Your task to perform on an android device: Open Wikipedia Image 0: 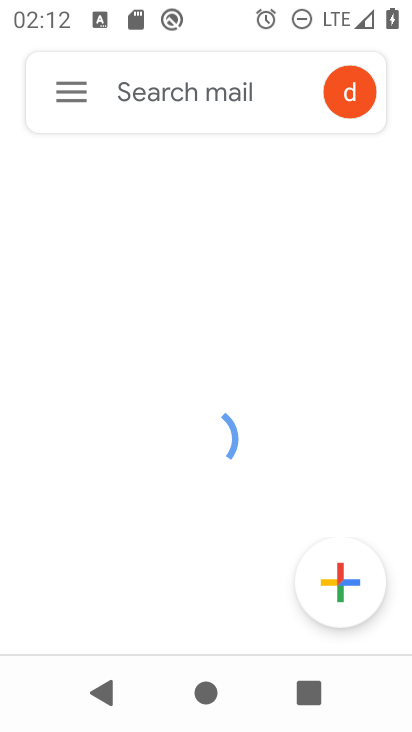
Step 0: press home button
Your task to perform on an android device: Open Wikipedia Image 1: 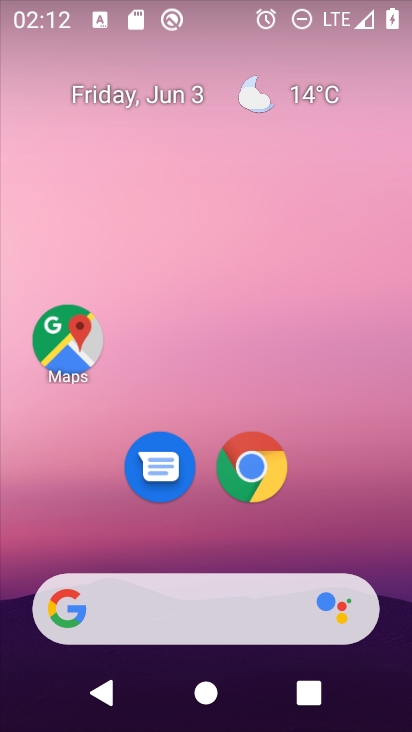
Step 1: click (254, 466)
Your task to perform on an android device: Open Wikipedia Image 2: 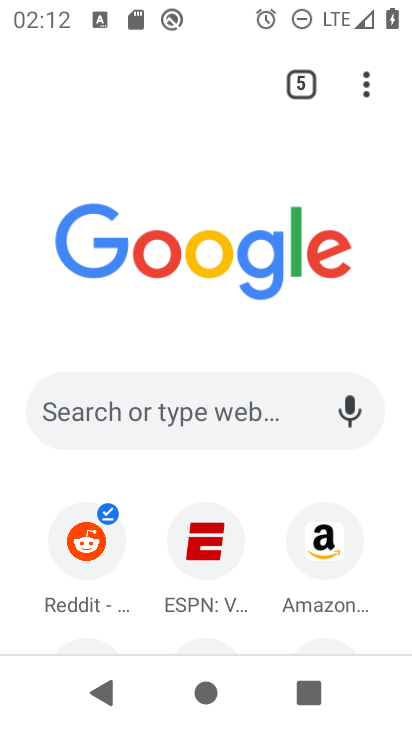
Step 2: click (156, 409)
Your task to perform on an android device: Open Wikipedia Image 3: 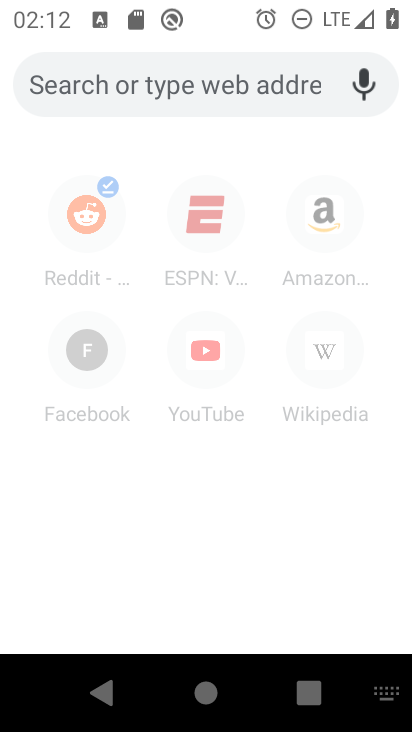
Step 3: type "wikipedia"
Your task to perform on an android device: Open Wikipedia Image 4: 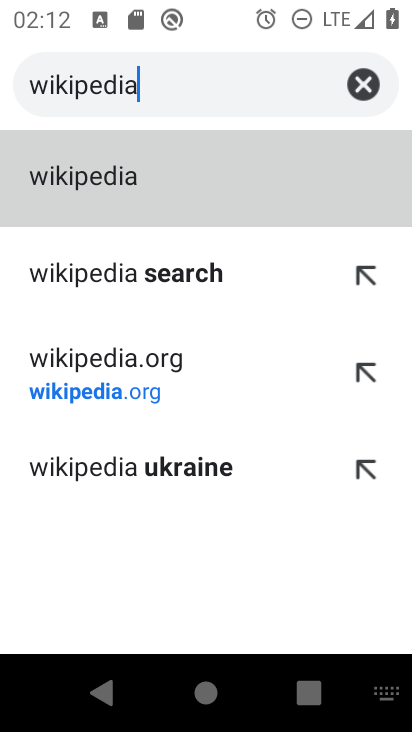
Step 4: click (101, 199)
Your task to perform on an android device: Open Wikipedia Image 5: 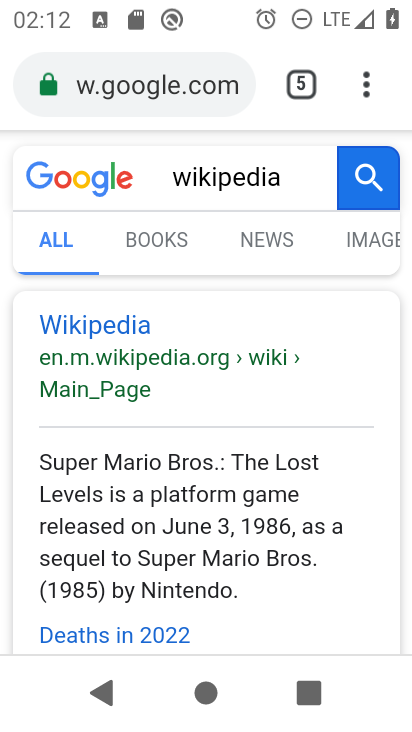
Step 5: click (77, 323)
Your task to perform on an android device: Open Wikipedia Image 6: 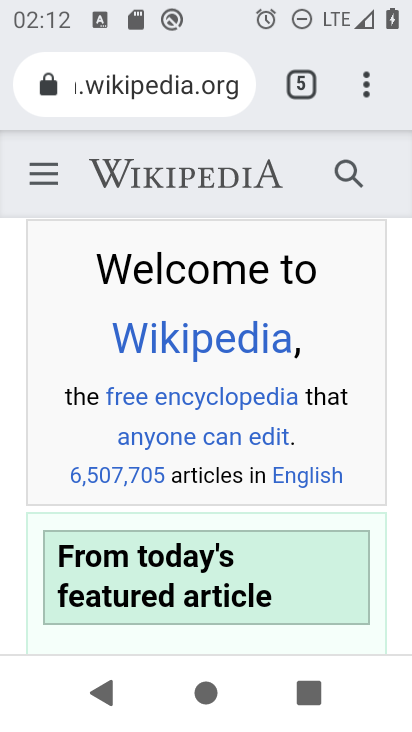
Step 6: task complete